Your task to perform on an android device: find which apps use the phone's location Image 0: 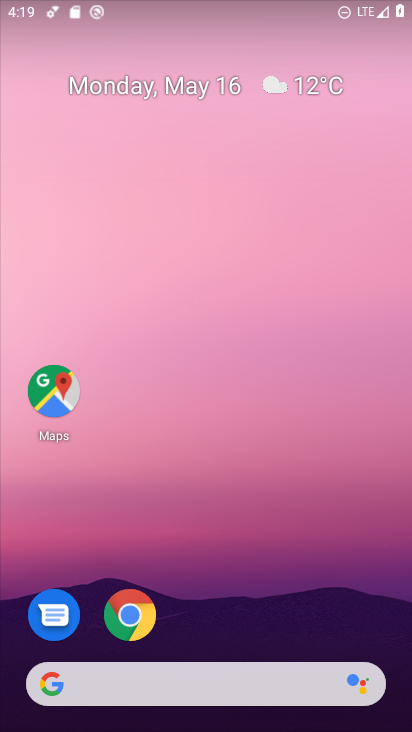
Step 0: drag from (231, 714) to (202, 237)
Your task to perform on an android device: find which apps use the phone's location Image 1: 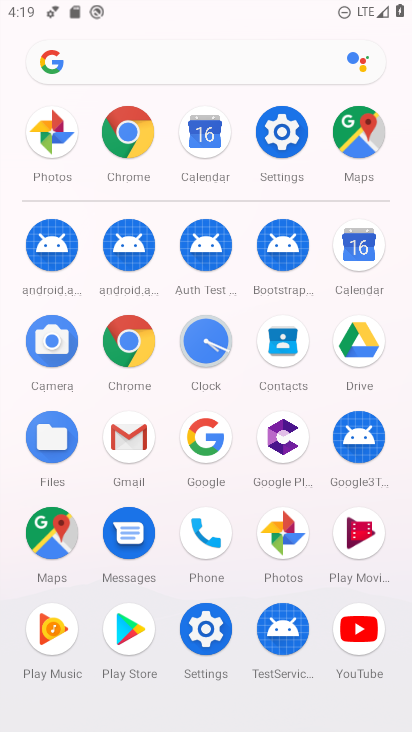
Step 1: click (290, 128)
Your task to perform on an android device: find which apps use the phone's location Image 2: 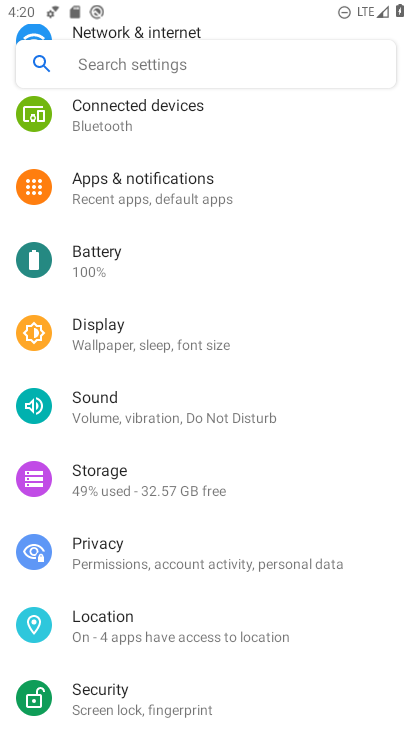
Step 2: click (100, 624)
Your task to perform on an android device: find which apps use the phone's location Image 3: 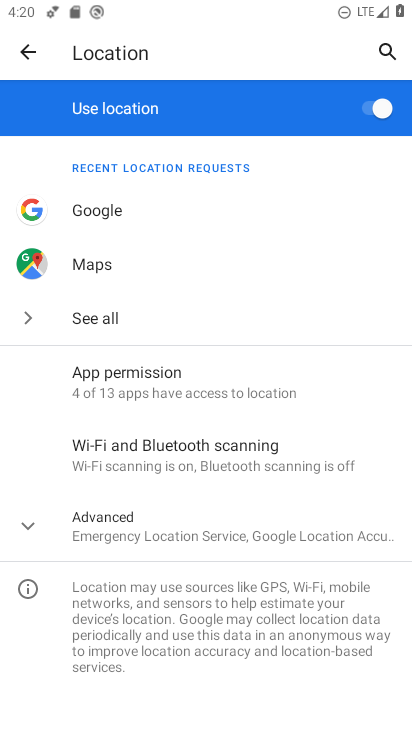
Step 3: click (133, 379)
Your task to perform on an android device: find which apps use the phone's location Image 4: 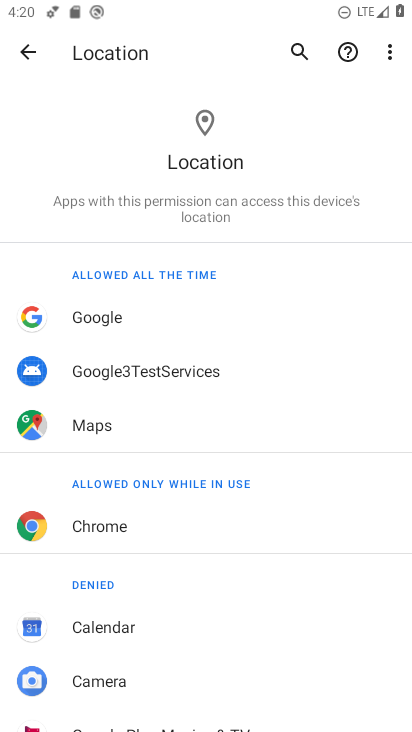
Step 4: task complete